Your task to perform on an android device: toggle notification dots Image 0: 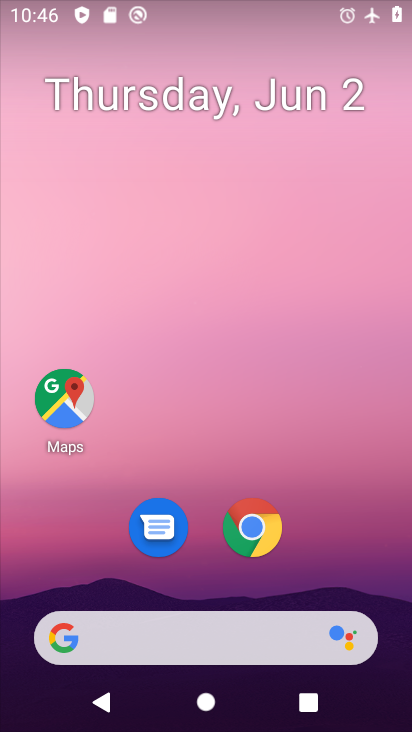
Step 0: drag from (188, 630) to (217, 124)
Your task to perform on an android device: toggle notification dots Image 1: 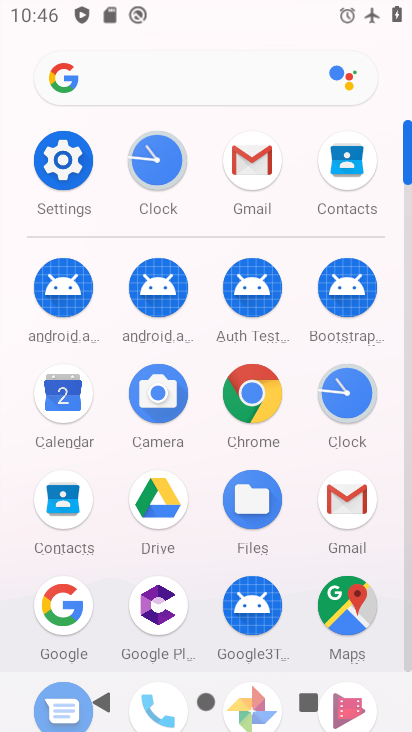
Step 1: click (67, 165)
Your task to perform on an android device: toggle notification dots Image 2: 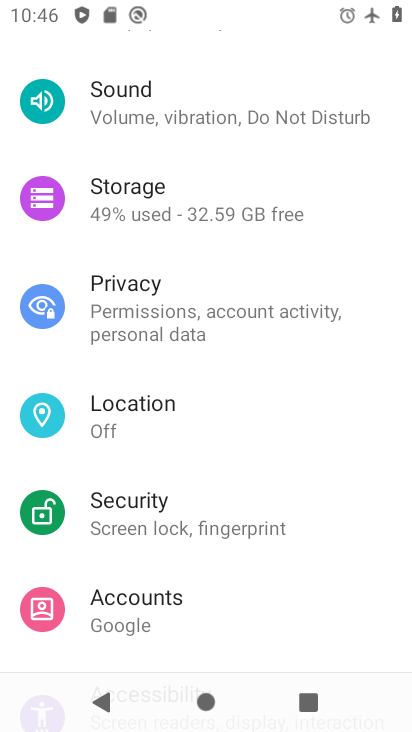
Step 2: drag from (167, 283) to (164, 651)
Your task to perform on an android device: toggle notification dots Image 3: 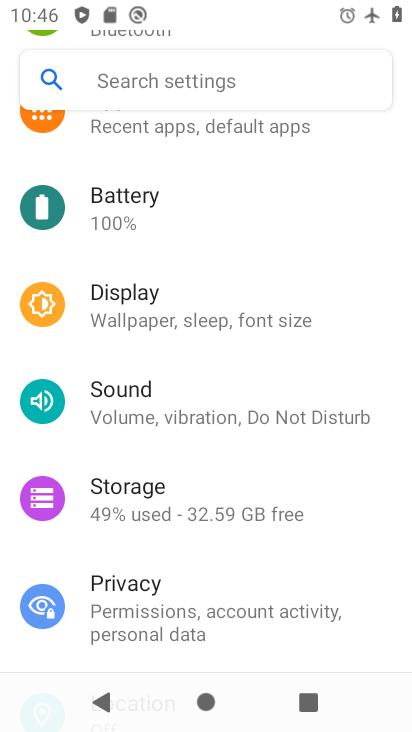
Step 3: drag from (138, 121) to (145, 422)
Your task to perform on an android device: toggle notification dots Image 4: 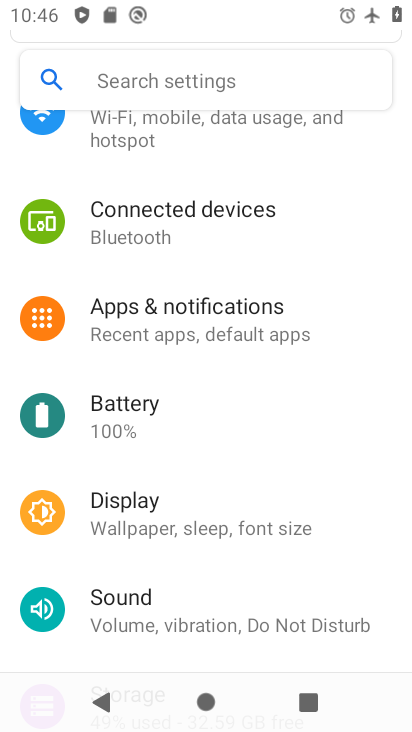
Step 4: click (167, 343)
Your task to perform on an android device: toggle notification dots Image 5: 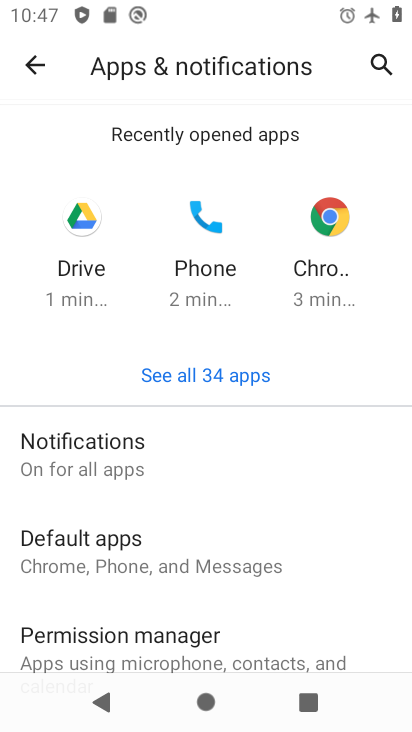
Step 5: click (140, 461)
Your task to perform on an android device: toggle notification dots Image 6: 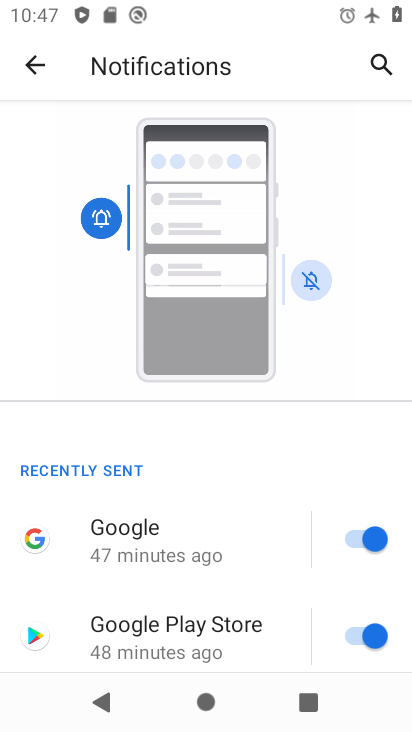
Step 6: drag from (188, 630) to (196, 81)
Your task to perform on an android device: toggle notification dots Image 7: 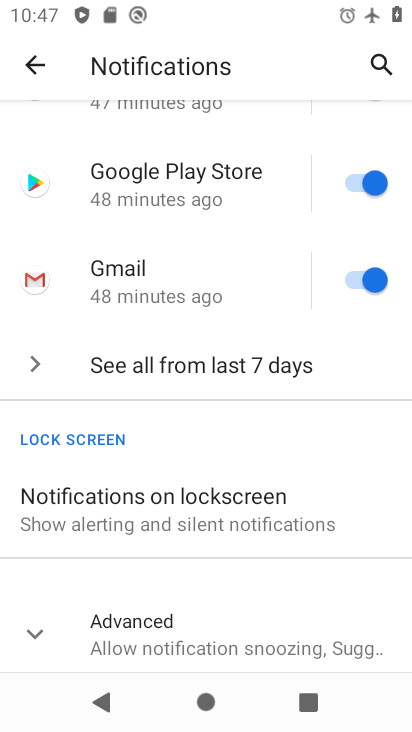
Step 7: drag from (240, 622) to (224, 179)
Your task to perform on an android device: toggle notification dots Image 8: 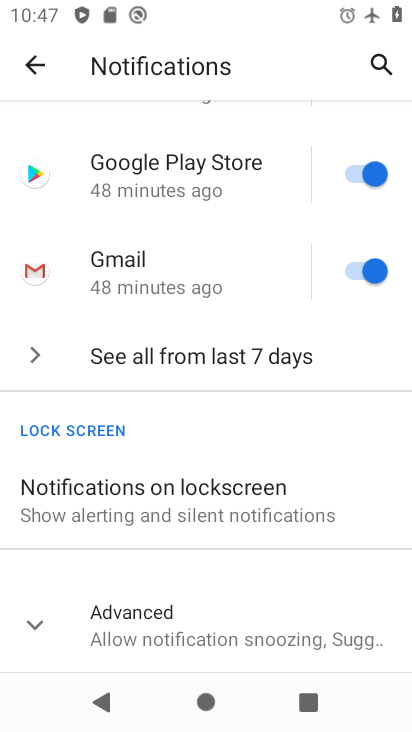
Step 8: click (168, 619)
Your task to perform on an android device: toggle notification dots Image 9: 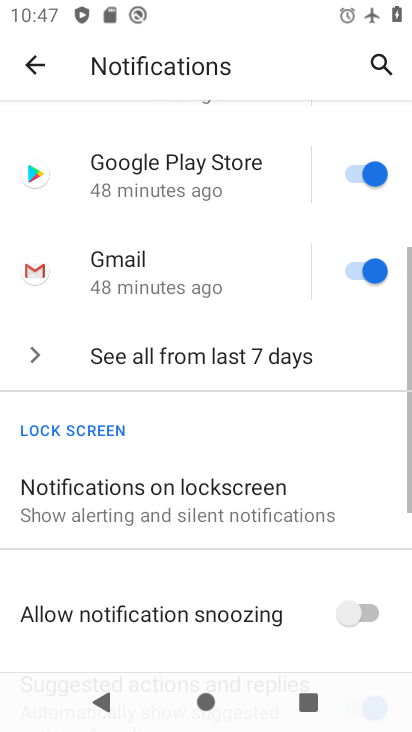
Step 9: drag from (184, 602) to (145, 124)
Your task to perform on an android device: toggle notification dots Image 10: 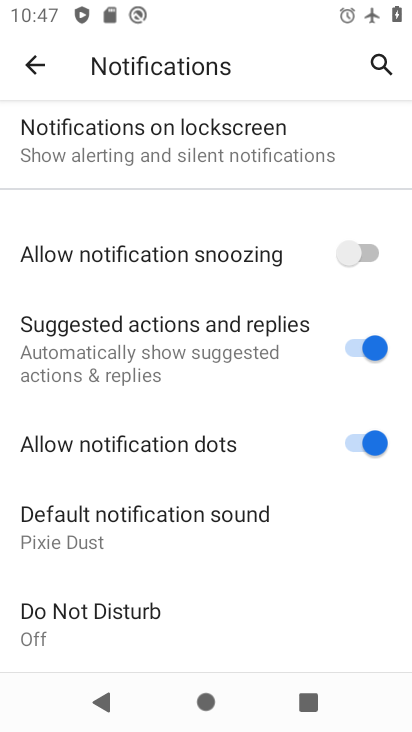
Step 10: click (371, 443)
Your task to perform on an android device: toggle notification dots Image 11: 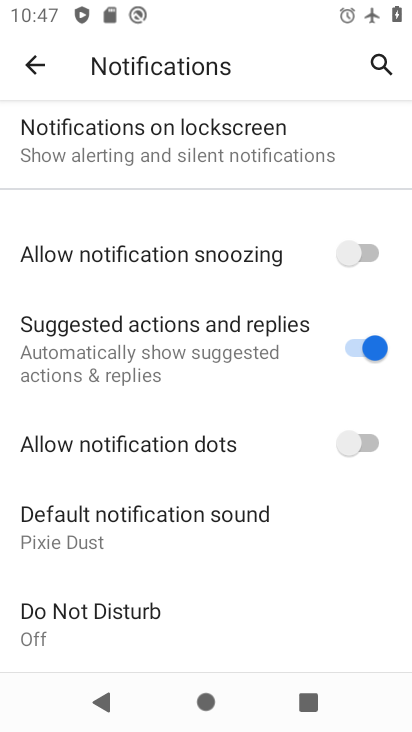
Step 11: task complete